Your task to perform on an android device: delete location history Image 0: 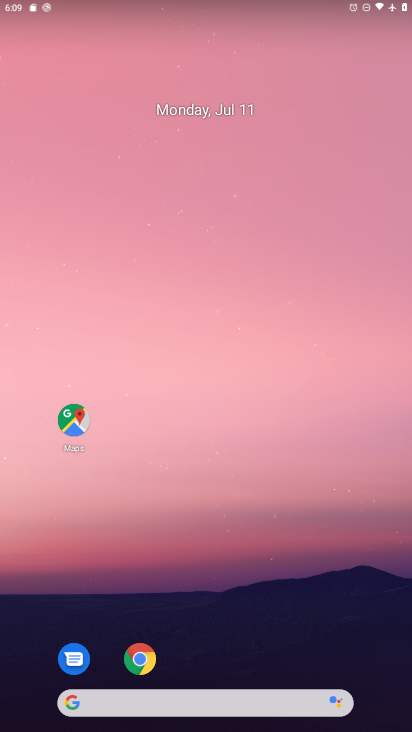
Step 0: click (74, 424)
Your task to perform on an android device: delete location history Image 1: 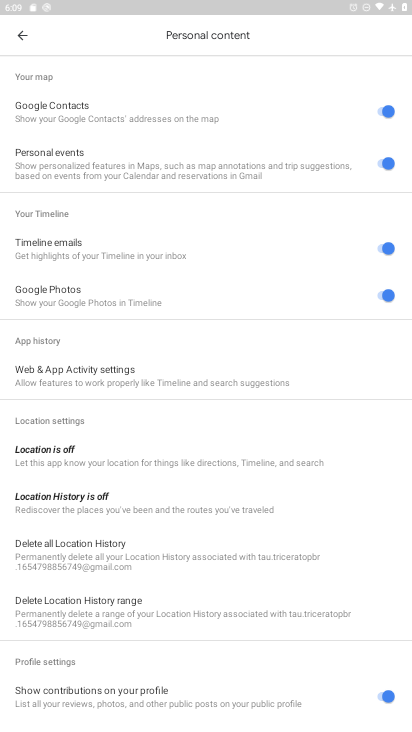
Step 1: click (48, 547)
Your task to perform on an android device: delete location history Image 2: 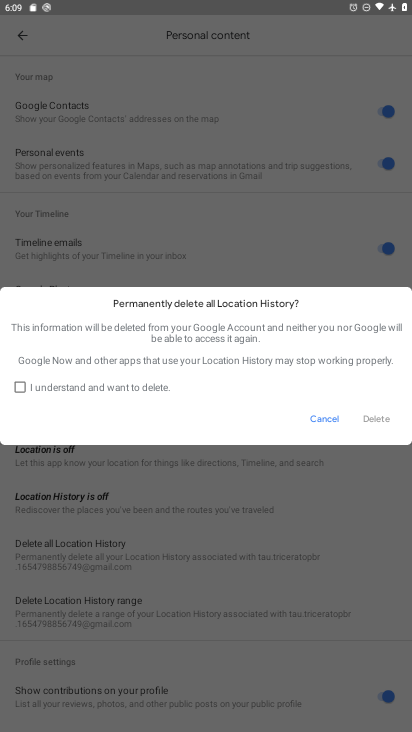
Step 2: click (20, 384)
Your task to perform on an android device: delete location history Image 3: 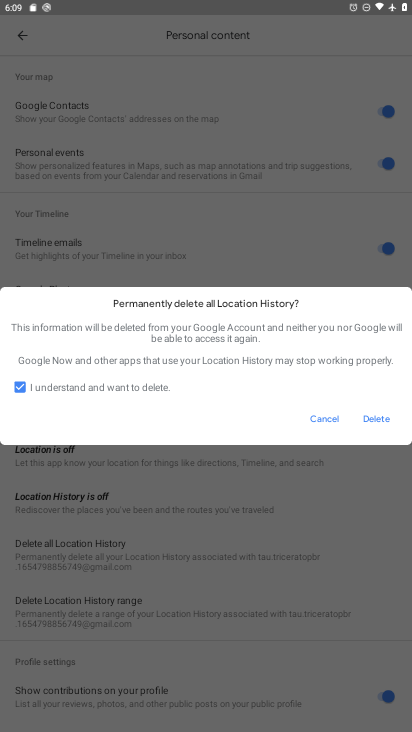
Step 3: click (375, 418)
Your task to perform on an android device: delete location history Image 4: 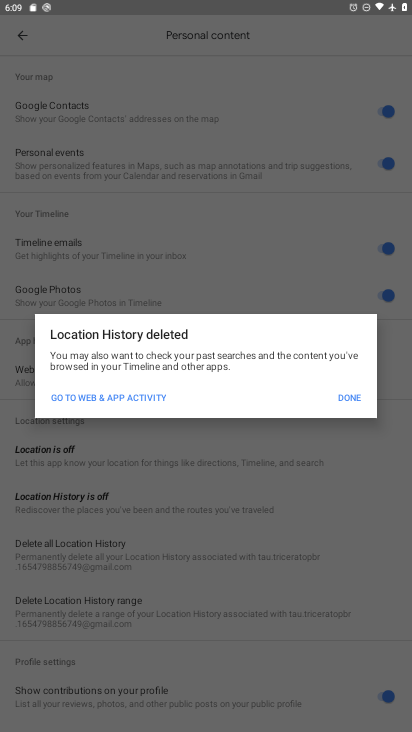
Step 4: click (348, 397)
Your task to perform on an android device: delete location history Image 5: 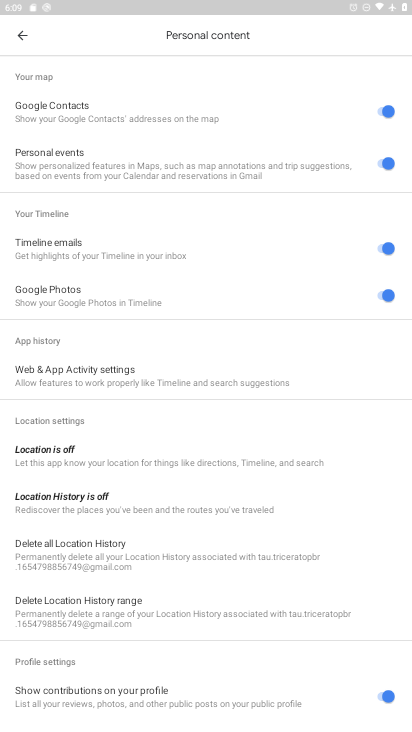
Step 5: task complete